Your task to perform on an android device: Go to Android settings Image 0: 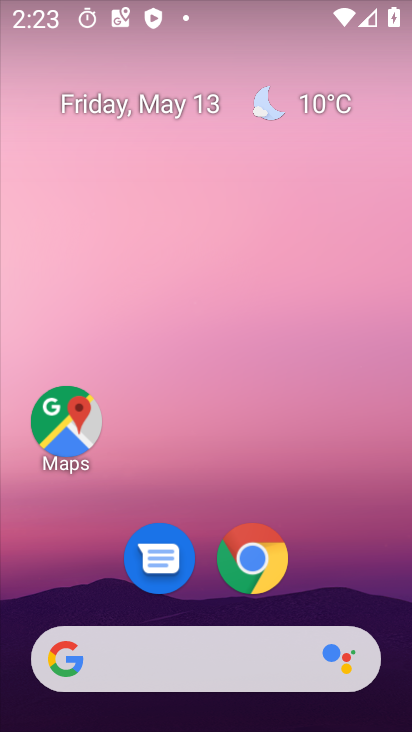
Step 0: drag from (198, 606) to (203, 244)
Your task to perform on an android device: Go to Android settings Image 1: 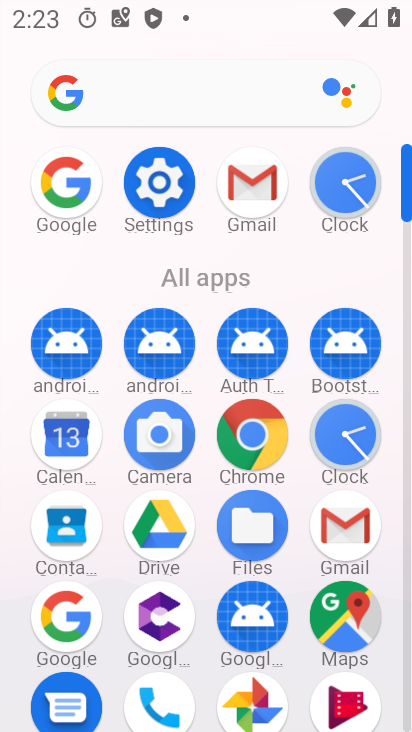
Step 1: click (192, 191)
Your task to perform on an android device: Go to Android settings Image 2: 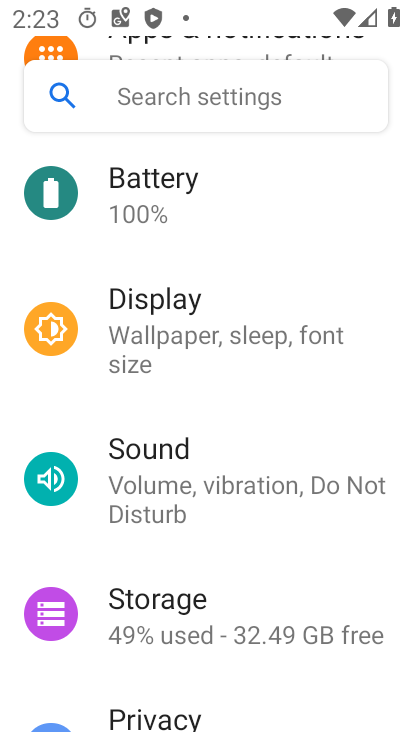
Step 2: task complete